Your task to perform on an android device: turn on sleep mode Image 0: 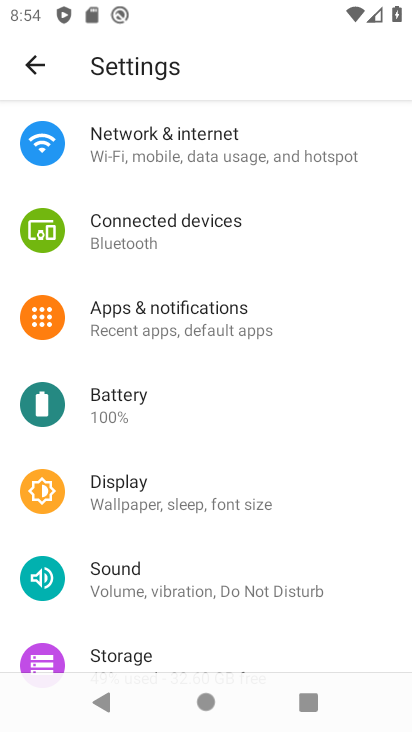
Step 0: press home button
Your task to perform on an android device: turn on sleep mode Image 1: 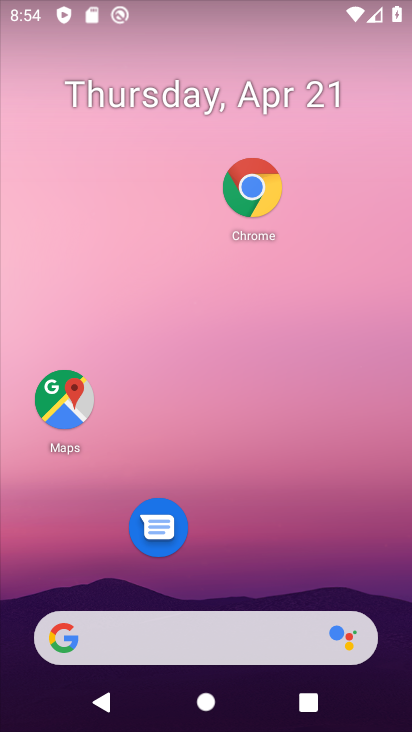
Step 1: drag from (217, 623) to (228, 288)
Your task to perform on an android device: turn on sleep mode Image 2: 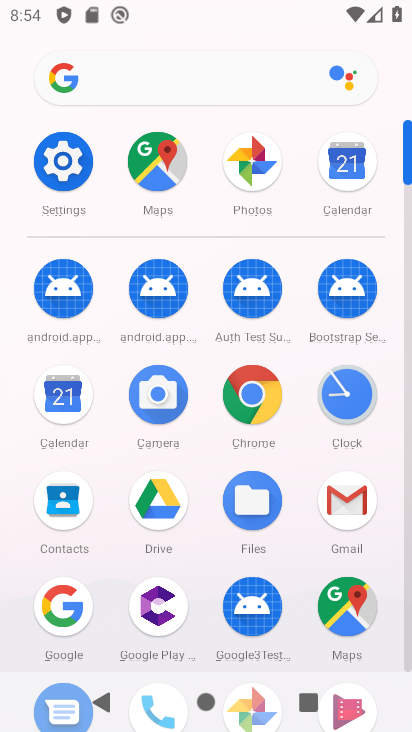
Step 2: click (66, 169)
Your task to perform on an android device: turn on sleep mode Image 3: 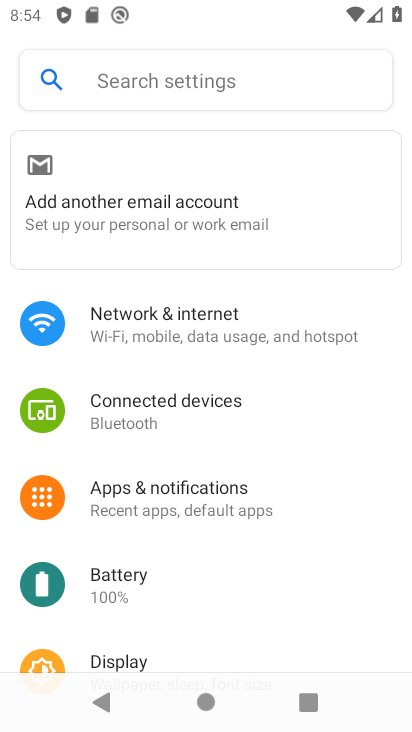
Step 3: click (142, 650)
Your task to perform on an android device: turn on sleep mode Image 4: 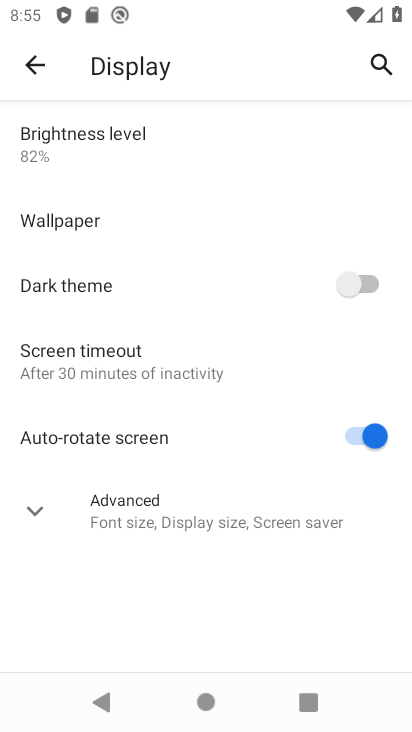
Step 4: click (106, 526)
Your task to perform on an android device: turn on sleep mode Image 5: 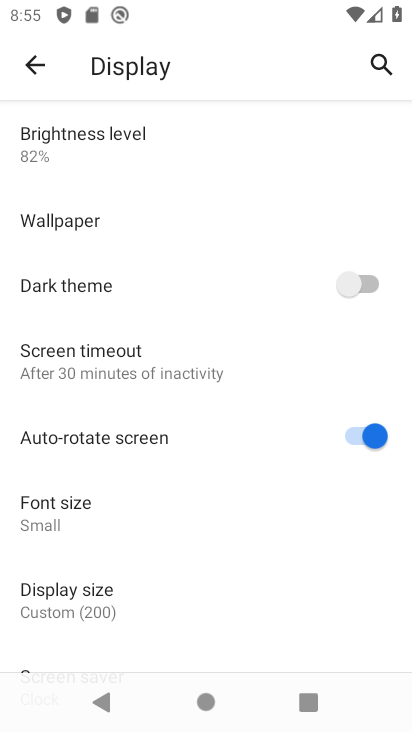
Step 5: task complete